Your task to perform on an android device: Open CNN.com Image 0: 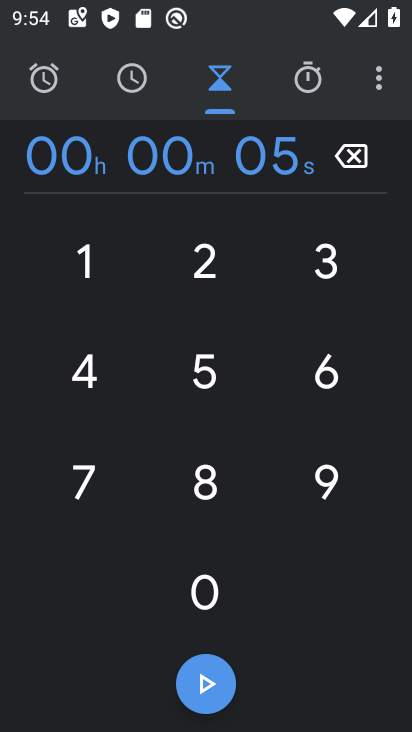
Step 0: press home button
Your task to perform on an android device: Open CNN.com Image 1: 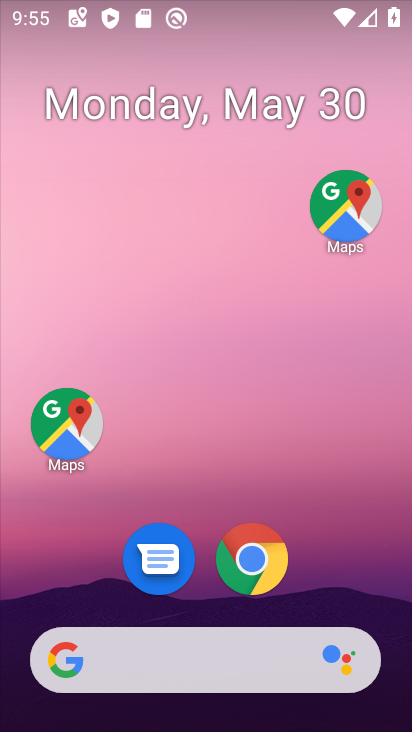
Step 1: click (246, 559)
Your task to perform on an android device: Open CNN.com Image 2: 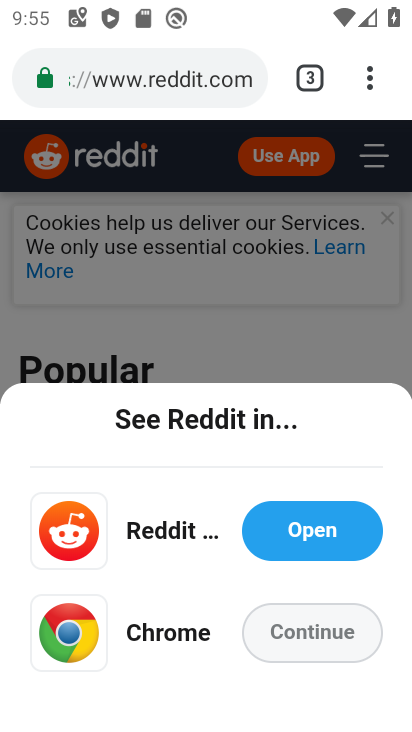
Step 2: click (237, 80)
Your task to perform on an android device: Open CNN.com Image 3: 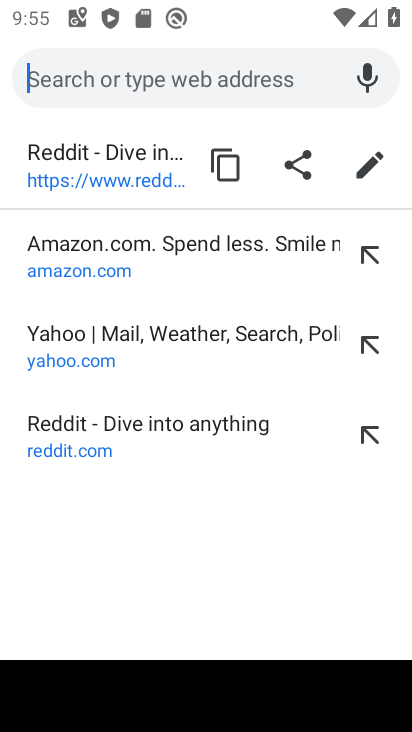
Step 3: type "cnn.com"
Your task to perform on an android device: Open CNN.com Image 4: 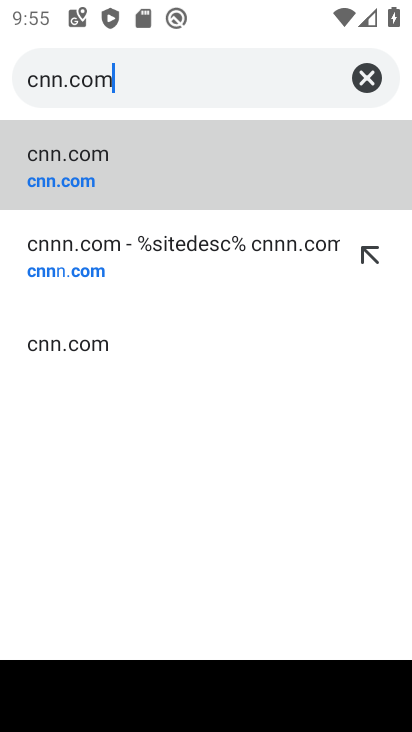
Step 4: click (48, 181)
Your task to perform on an android device: Open CNN.com Image 5: 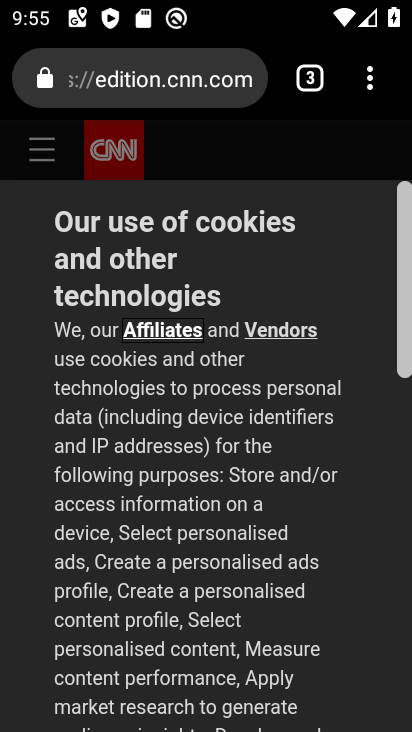
Step 5: task complete